Your task to perform on an android device: uninstall "Facebook Messenger" Image 0: 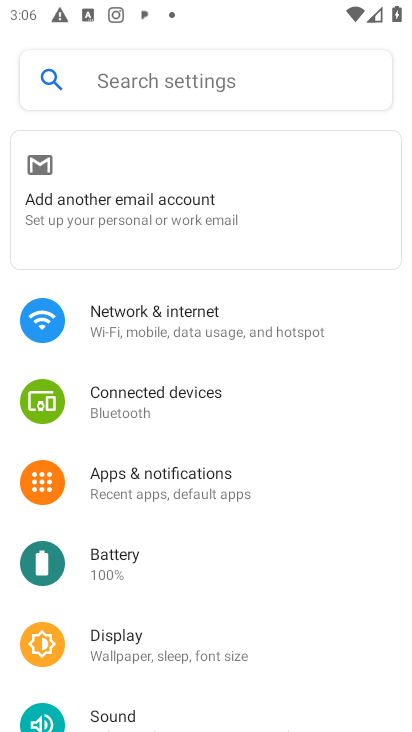
Step 0: press home button
Your task to perform on an android device: uninstall "Facebook Messenger" Image 1: 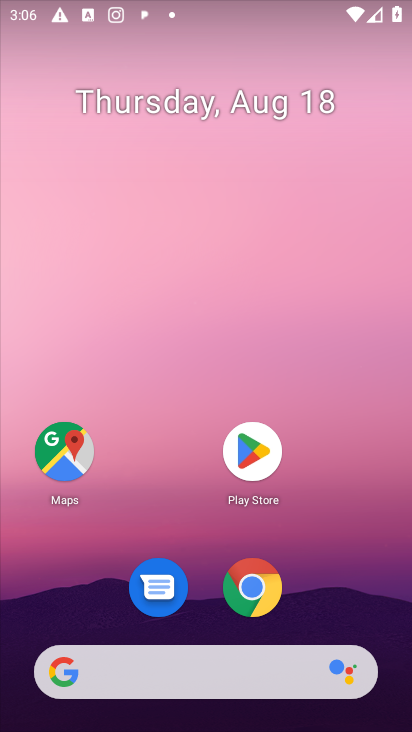
Step 1: click (252, 448)
Your task to perform on an android device: uninstall "Facebook Messenger" Image 2: 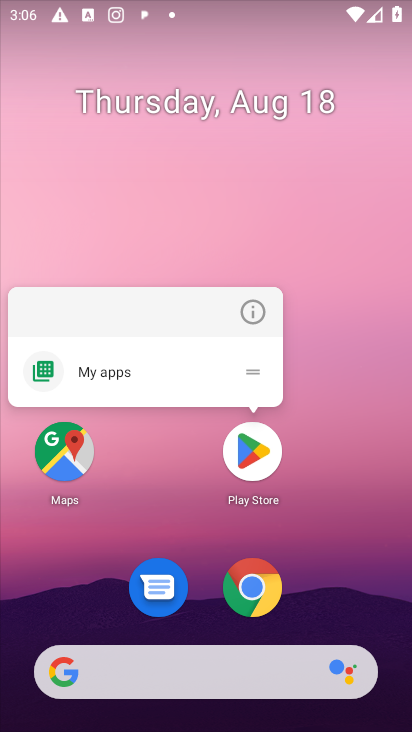
Step 2: click (251, 464)
Your task to perform on an android device: uninstall "Facebook Messenger" Image 3: 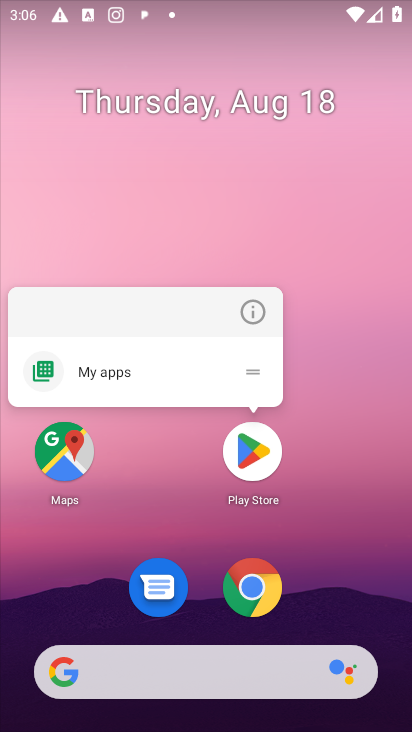
Step 3: click (252, 449)
Your task to perform on an android device: uninstall "Facebook Messenger" Image 4: 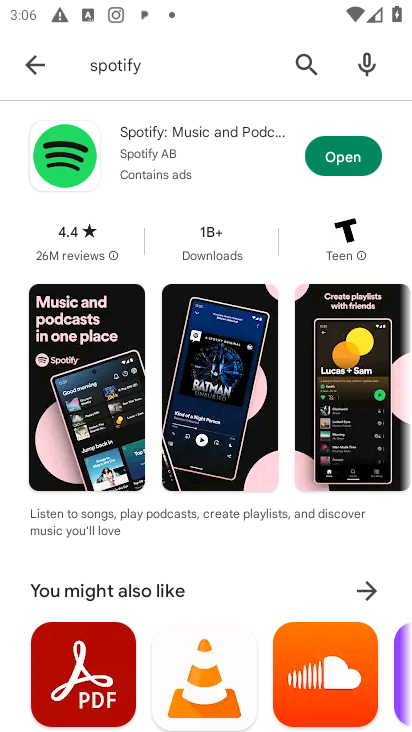
Step 4: click (304, 52)
Your task to perform on an android device: uninstall "Facebook Messenger" Image 5: 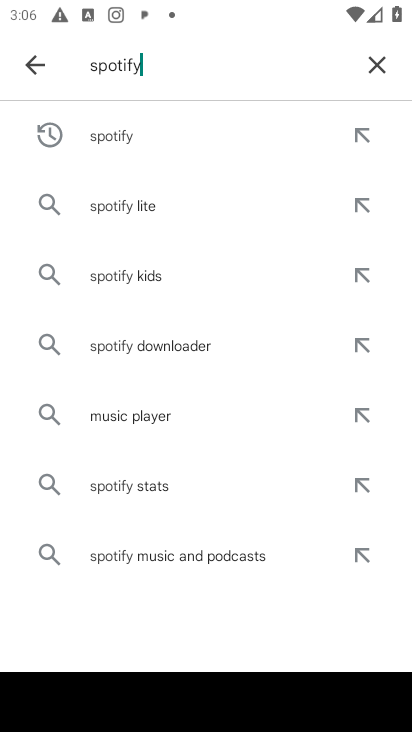
Step 5: click (370, 63)
Your task to perform on an android device: uninstall "Facebook Messenger" Image 6: 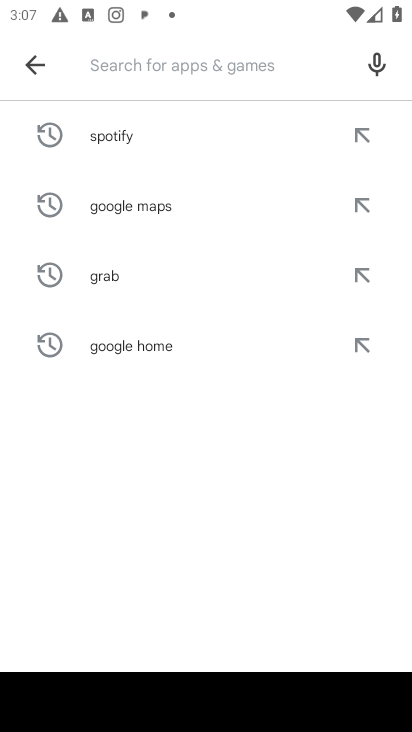
Step 6: type "Facebook Messenger"
Your task to perform on an android device: uninstall "Facebook Messenger" Image 7: 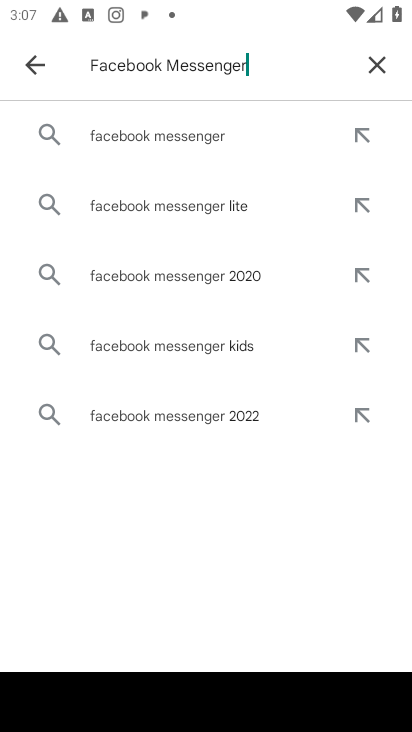
Step 7: click (180, 143)
Your task to perform on an android device: uninstall "Facebook Messenger" Image 8: 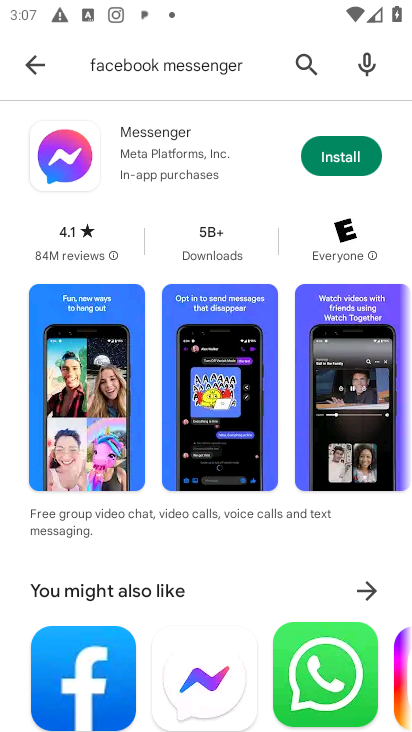
Step 8: task complete